Your task to perform on an android device: Go to internet settings Image 0: 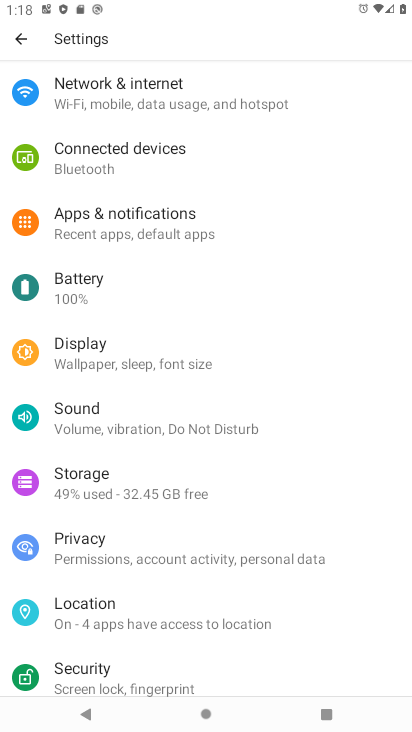
Step 0: click (256, 95)
Your task to perform on an android device: Go to internet settings Image 1: 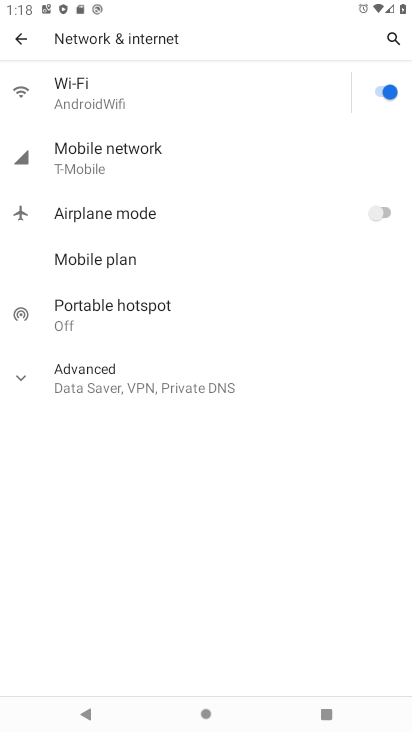
Step 1: click (124, 140)
Your task to perform on an android device: Go to internet settings Image 2: 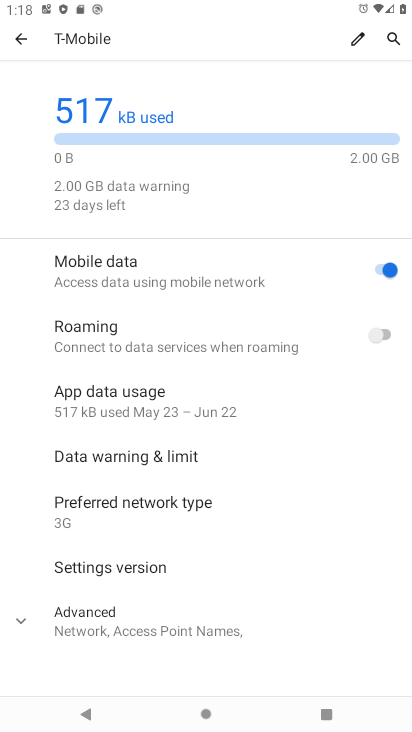
Step 2: task complete